Your task to perform on an android device: turn off priority inbox in the gmail app Image 0: 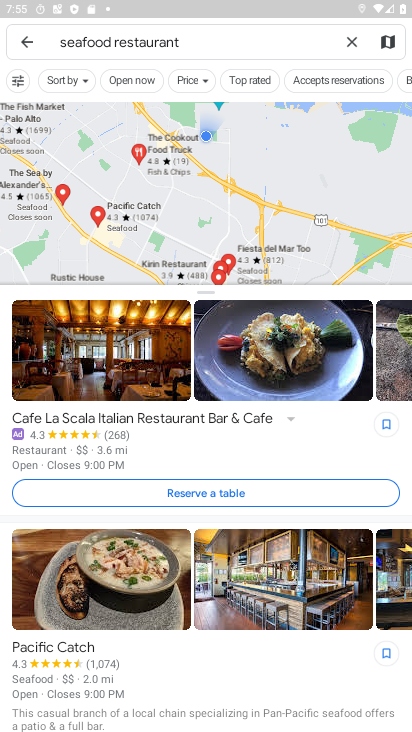
Step 0: press home button
Your task to perform on an android device: turn off priority inbox in the gmail app Image 1: 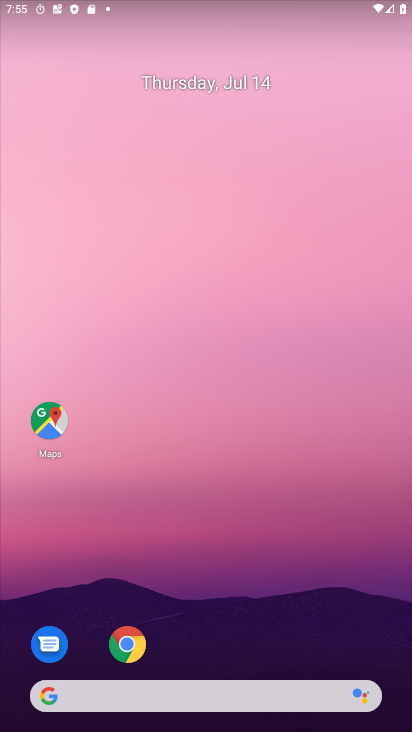
Step 1: drag from (171, 696) to (285, 214)
Your task to perform on an android device: turn off priority inbox in the gmail app Image 2: 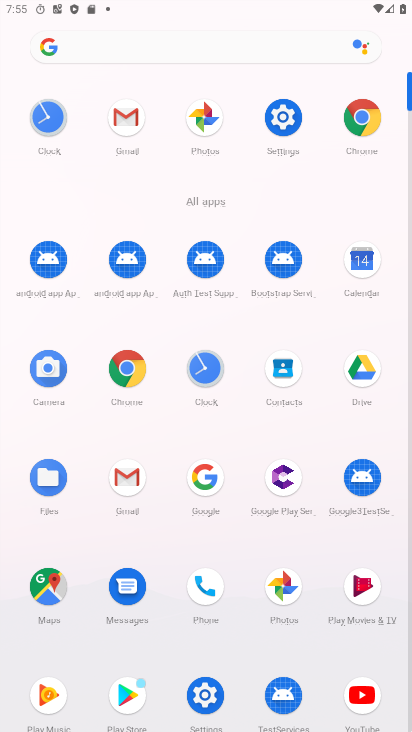
Step 2: click (115, 120)
Your task to perform on an android device: turn off priority inbox in the gmail app Image 3: 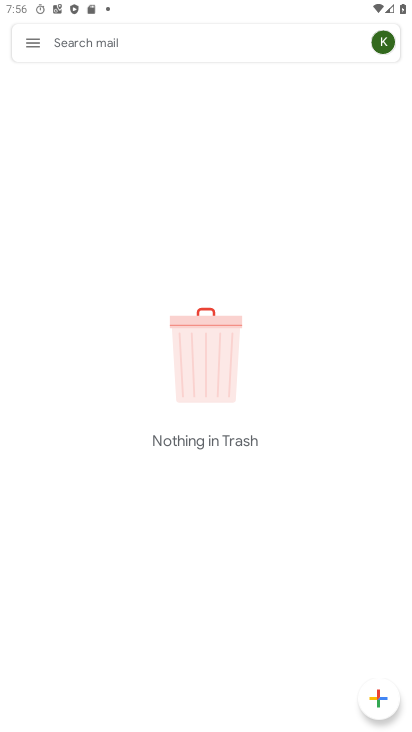
Step 3: click (39, 41)
Your task to perform on an android device: turn off priority inbox in the gmail app Image 4: 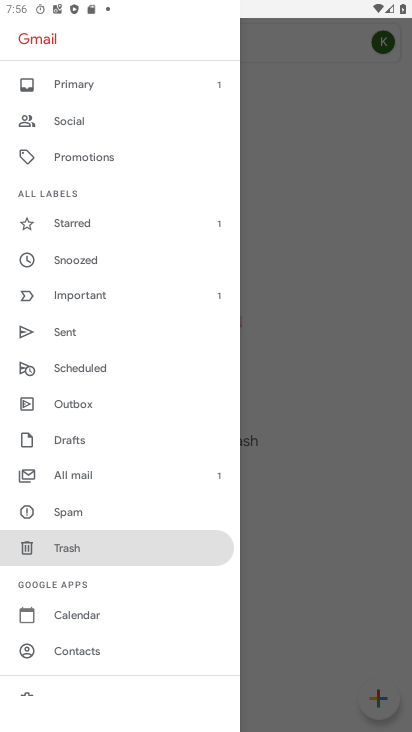
Step 4: drag from (125, 639) to (283, 200)
Your task to perform on an android device: turn off priority inbox in the gmail app Image 5: 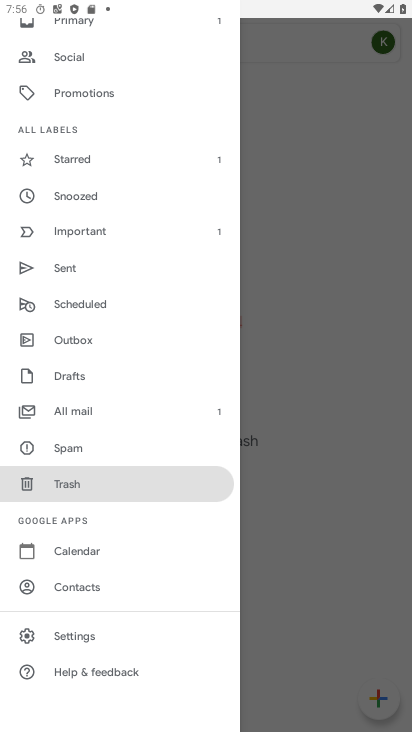
Step 5: click (83, 637)
Your task to perform on an android device: turn off priority inbox in the gmail app Image 6: 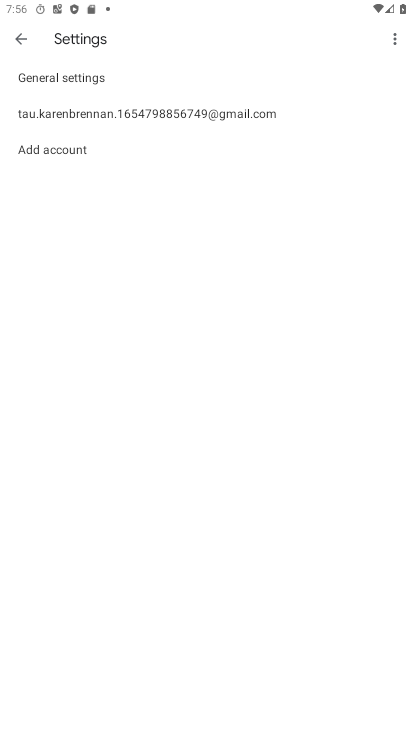
Step 6: click (230, 113)
Your task to perform on an android device: turn off priority inbox in the gmail app Image 7: 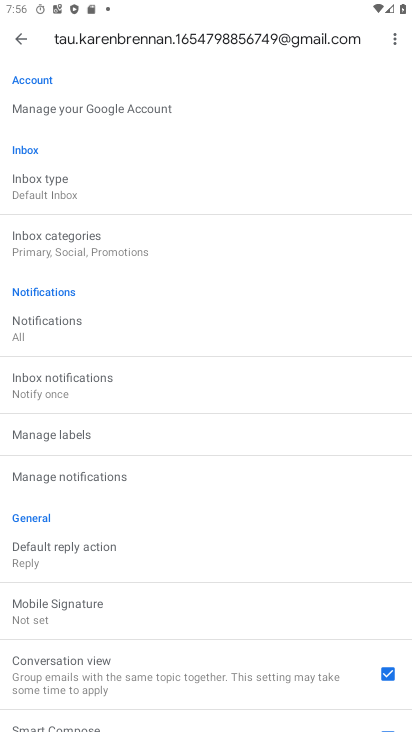
Step 7: click (50, 191)
Your task to perform on an android device: turn off priority inbox in the gmail app Image 8: 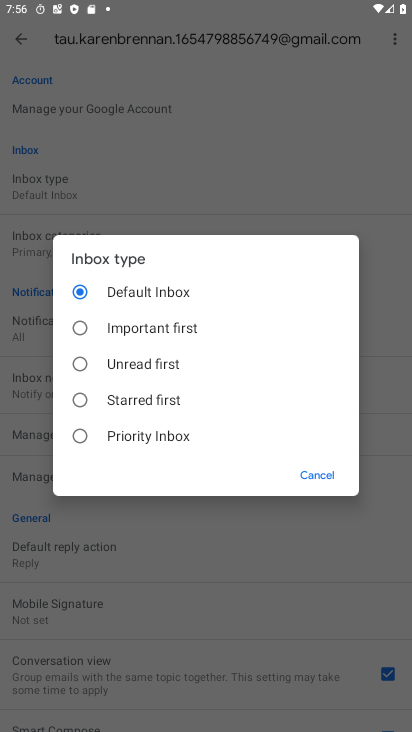
Step 8: click (80, 439)
Your task to perform on an android device: turn off priority inbox in the gmail app Image 9: 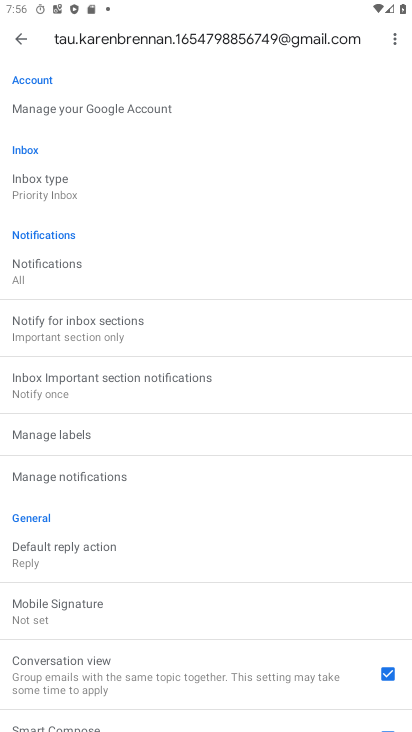
Step 9: task complete